Your task to perform on an android device: Go to Reddit.com Image 0: 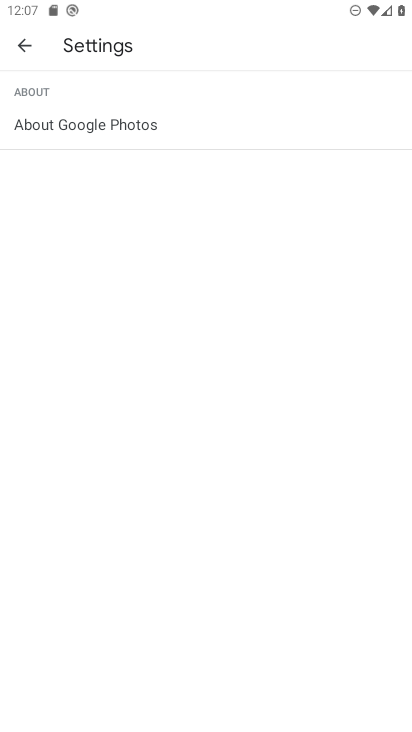
Step 0: click (17, 50)
Your task to perform on an android device: Go to Reddit.com Image 1: 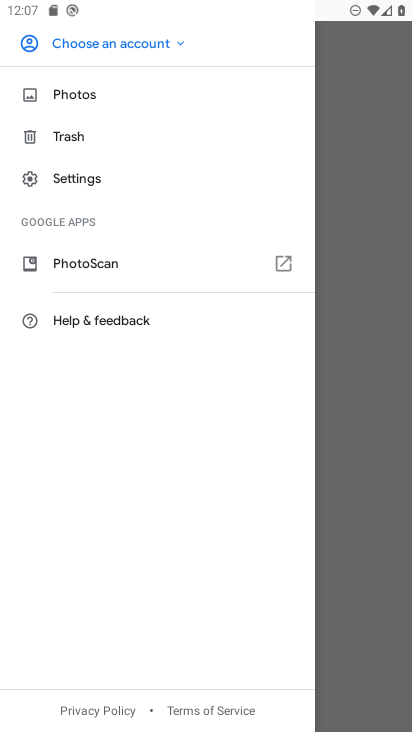
Step 1: press back button
Your task to perform on an android device: Go to Reddit.com Image 2: 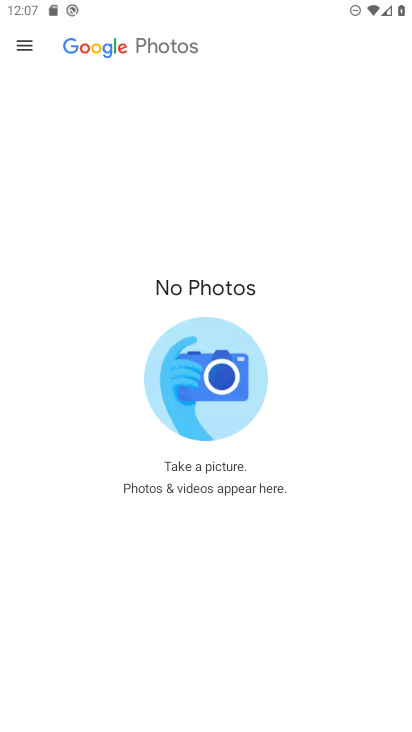
Step 2: press home button
Your task to perform on an android device: Go to Reddit.com Image 3: 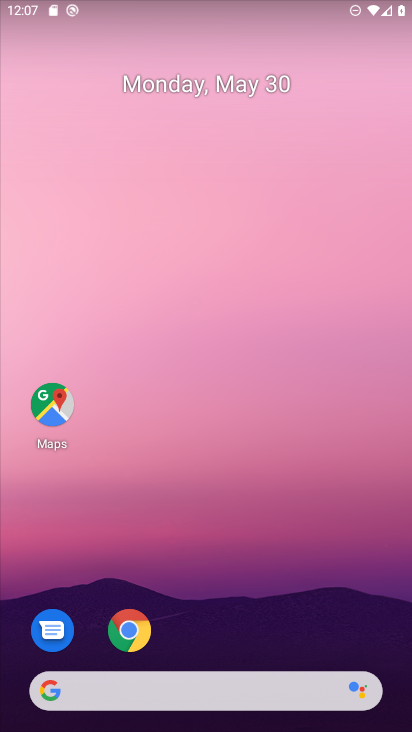
Step 3: drag from (252, 682) to (177, 101)
Your task to perform on an android device: Go to Reddit.com Image 4: 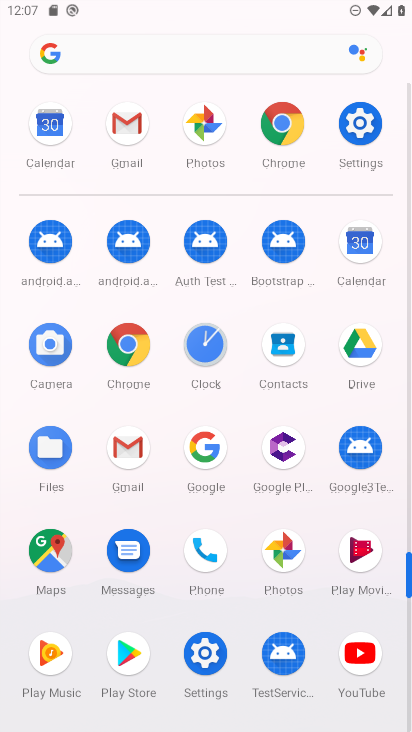
Step 4: click (282, 130)
Your task to perform on an android device: Go to Reddit.com Image 5: 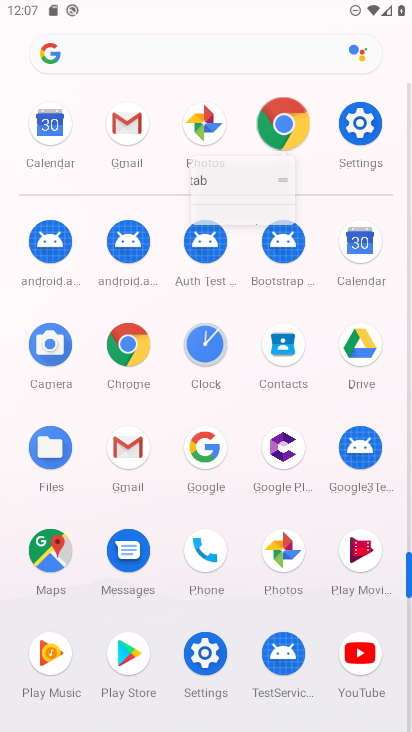
Step 5: click (282, 130)
Your task to perform on an android device: Go to Reddit.com Image 6: 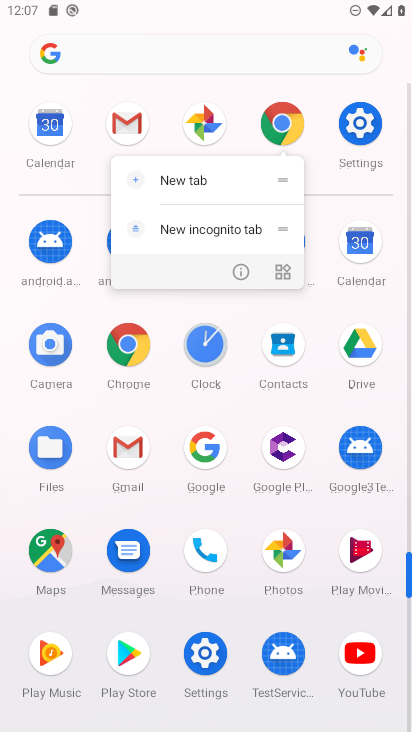
Step 6: click (282, 130)
Your task to perform on an android device: Go to Reddit.com Image 7: 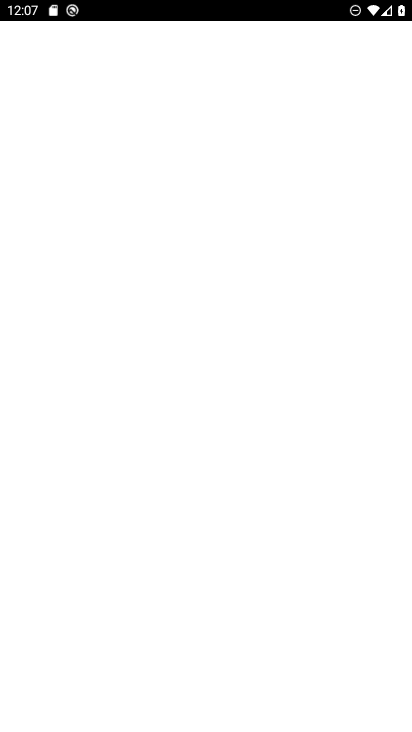
Step 7: click (283, 129)
Your task to perform on an android device: Go to Reddit.com Image 8: 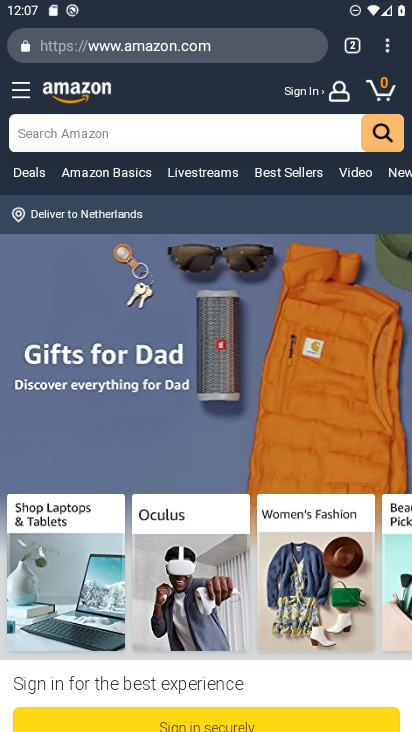
Step 8: drag from (390, 48) to (213, 86)
Your task to perform on an android device: Go to Reddit.com Image 9: 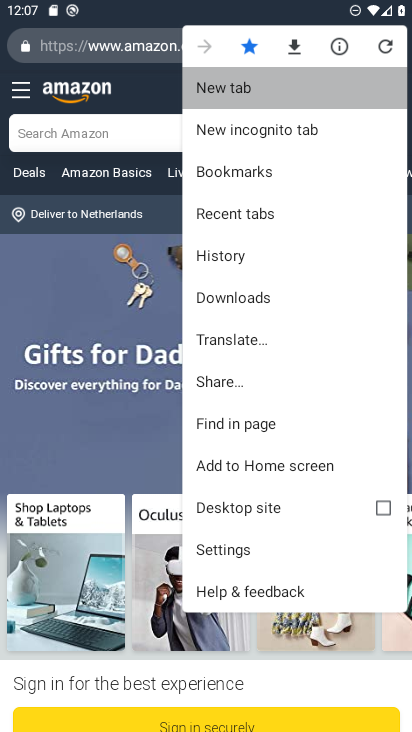
Step 9: click (214, 86)
Your task to perform on an android device: Go to Reddit.com Image 10: 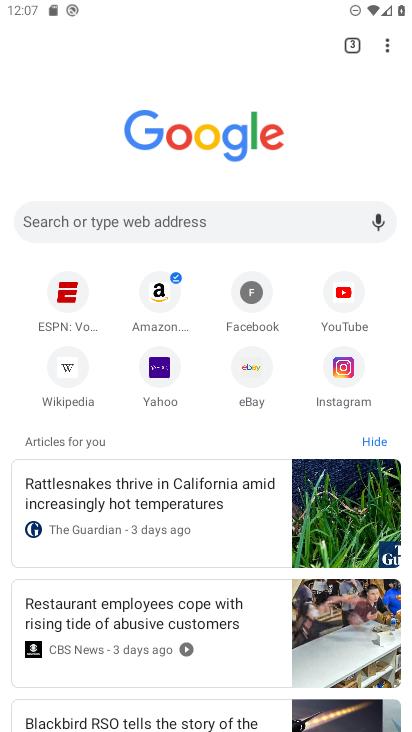
Step 10: click (65, 221)
Your task to perform on an android device: Go to Reddit.com Image 11: 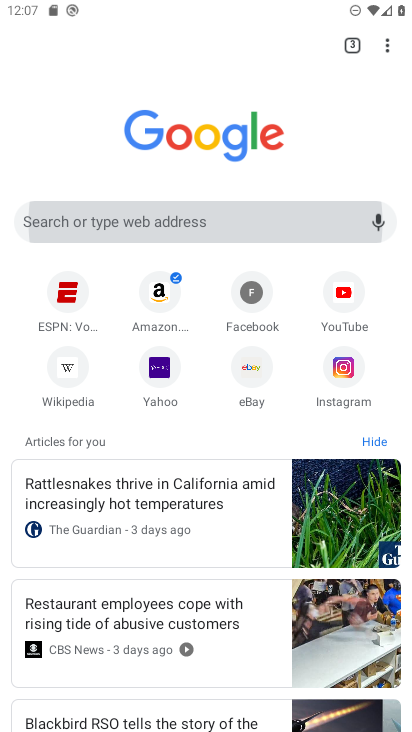
Step 11: click (65, 221)
Your task to perform on an android device: Go to Reddit.com Image 12: 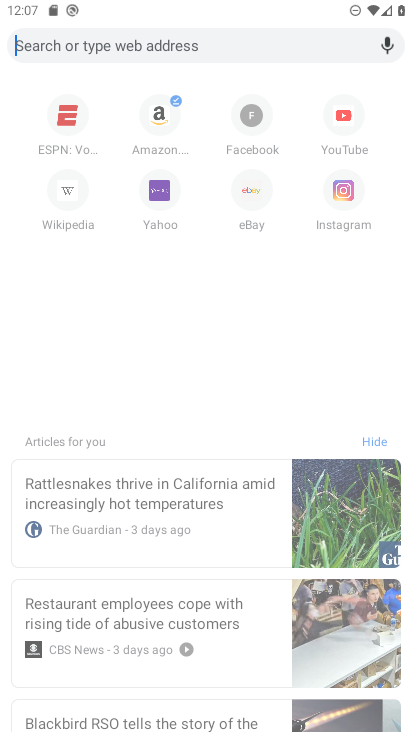
Step 12: click (65, 221)
Your task to perform on an android device: Go to Reddit.com Image 13: 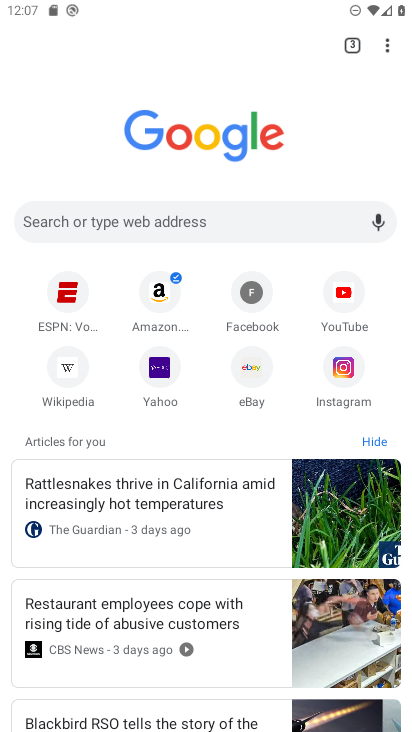
Step 13: type "REDDIT.COM"
Your task to perform on an android device: Go to Reddit.com Image 14: 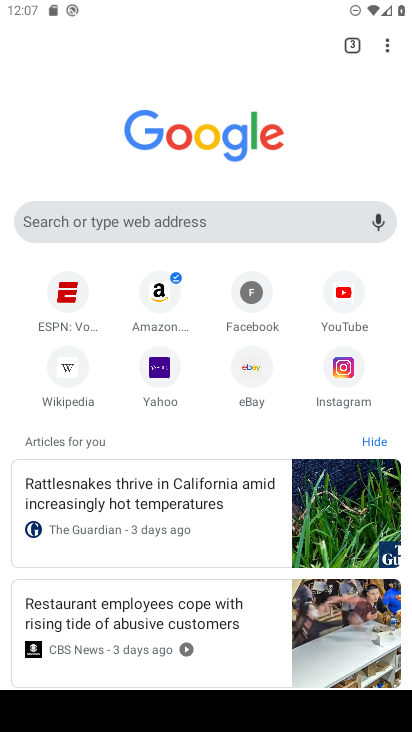
Step 14: click (44, 224)
Your task to perform on an android device: Go to Reddit.com Image 15: 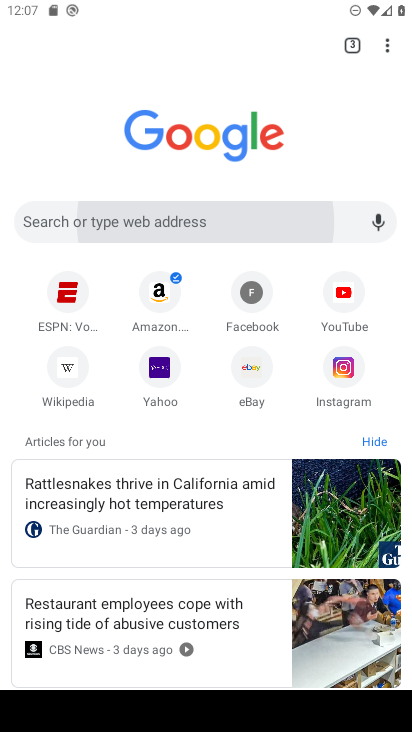
Step 15: click (44, 224)
Your task to perform on an android device: Go to Reddit.com Image 16: 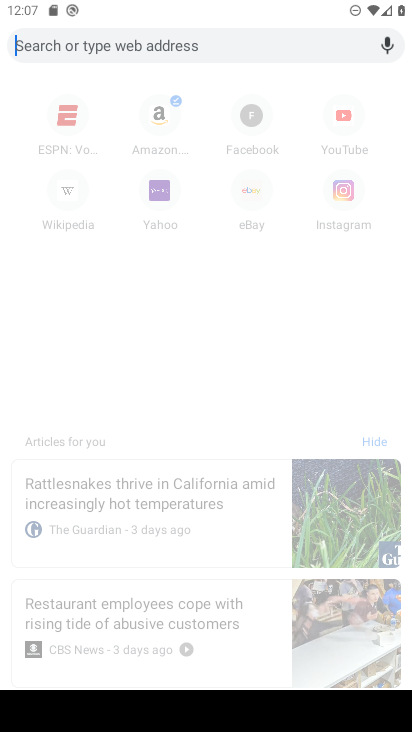
Step 16: type "REDDIT.com"
Your task to perform on an android device: Go to Reddit.com Image 17: 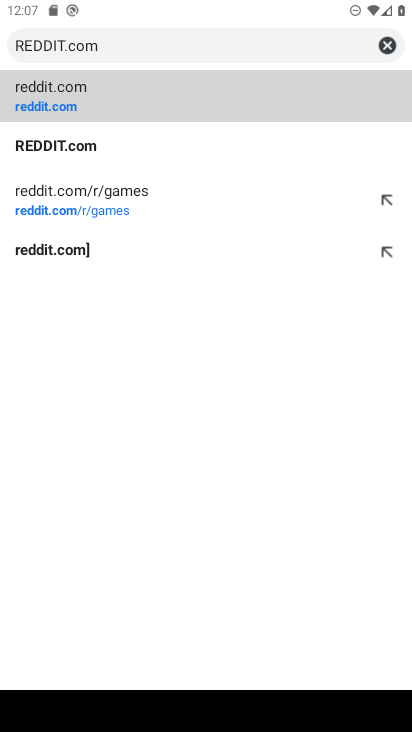
Step 17: click (33, 99)
Your task to perform on an android device: Go to Reddit.com Image 18: 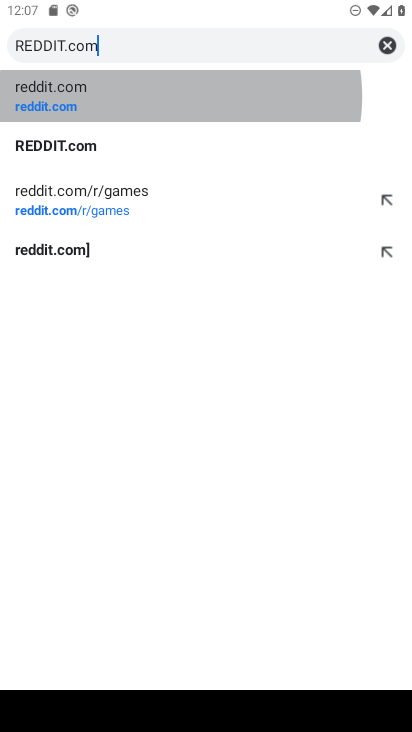
Step 18: click (33, 99)
Your task to perform on an android device: Go to Reddit.com Image 19: 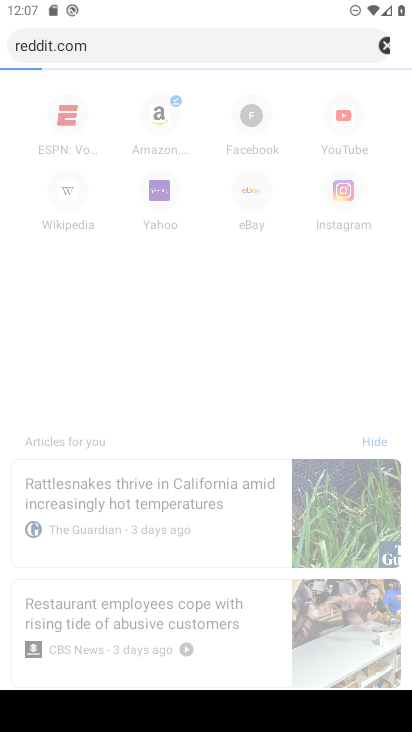
Step 19: click (40, 94)
Your task to perform on an android device: Go to Reddit.com Image 20: 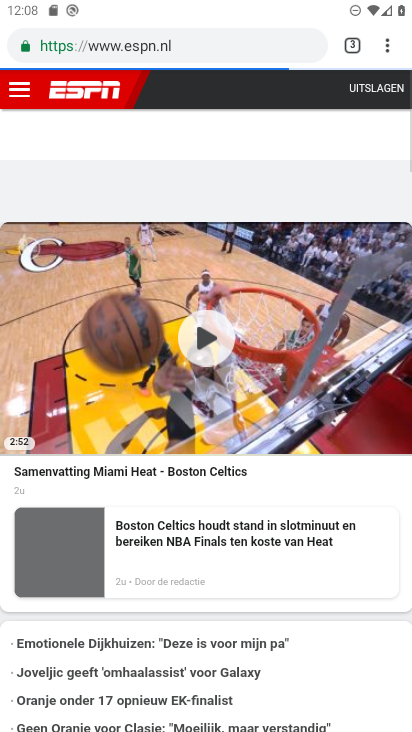
Step 20: task complete